Your task to perform on an android device: turn off priority inbox in the gmail app Image 0: 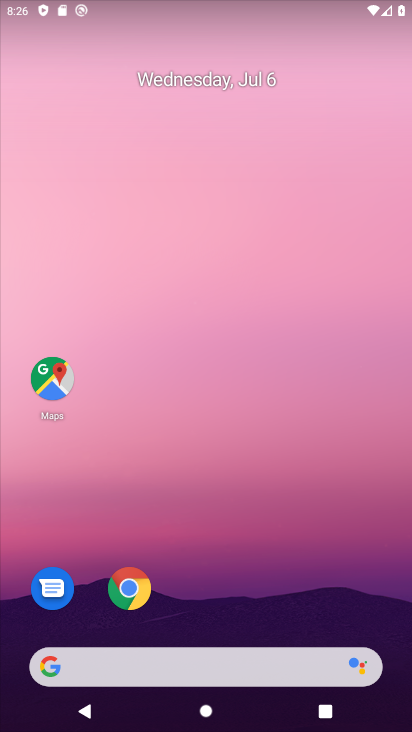
Step 0: drag from (183, 614) to (245, 255)
Your task to perform on an android device: turn off priority inbox in the gmail app Image 1: 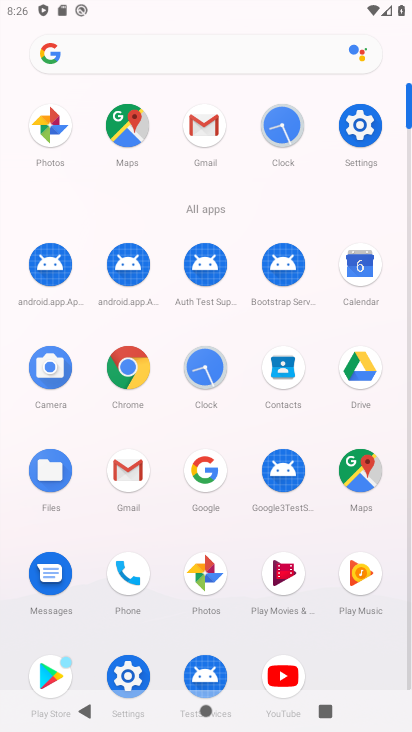
Step 1: click (128, 469)
Your task to perform on an android device: turn off priority inbox in the gmail app Image 2: 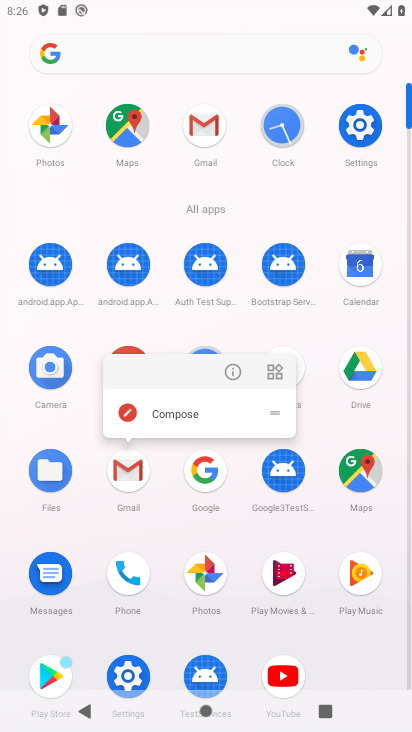
Step 2: click (235, 368)
Your task to perform on an android device: turn off priority inbox in the gmail app Image 3: 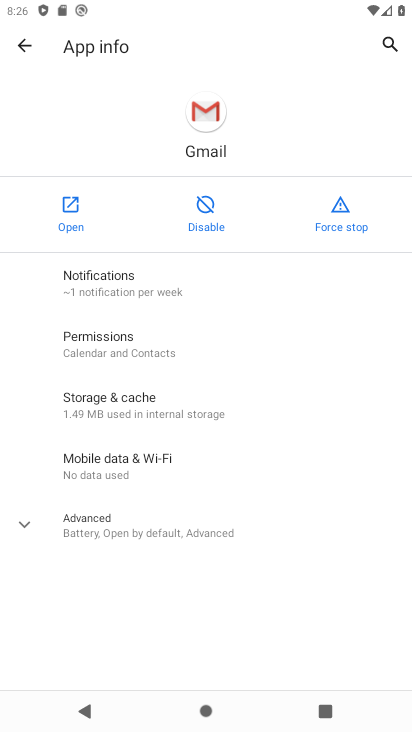
Step 3: click (76, 216)
Your task to perform on an android device: turn off priority inbox in the gmail app Image 4: 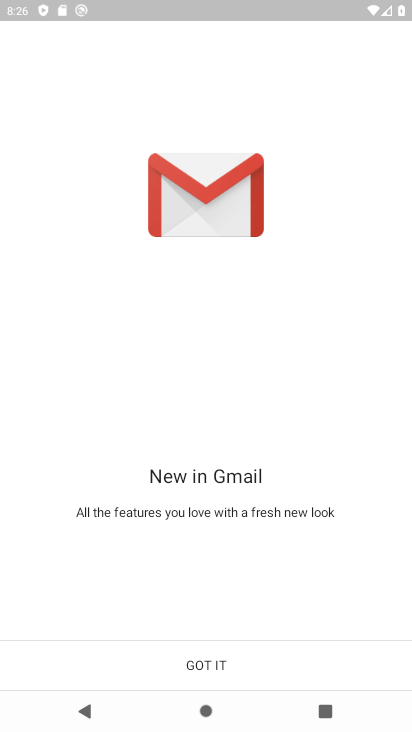
Step 4: click (198, 661)
Your task to perform on an android device: turn off priority inbox in the gmail app Image 5: 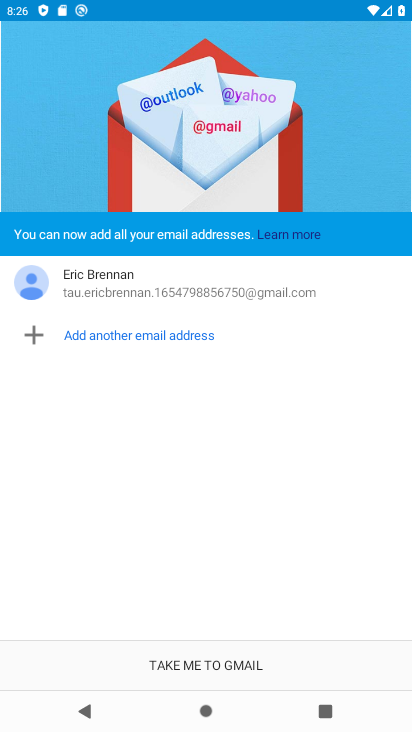
Step 5: click (193, 664)
Your task to perform on an android device: turn off priority inbox in the gmail app Image 6: 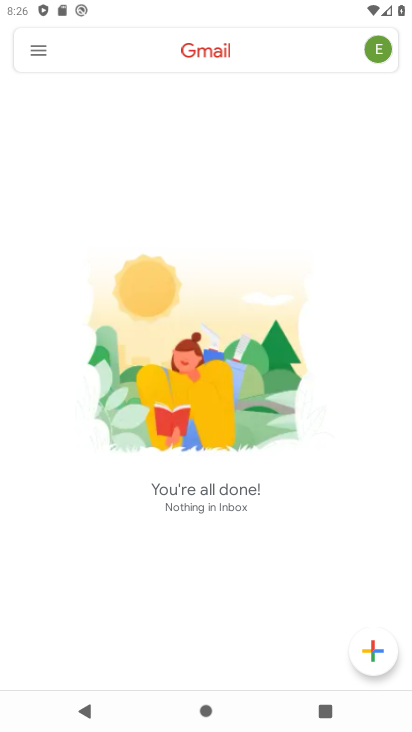
Step 6: click (36, 45)
Your task to perform on an android device: turn off priority inbox in the gmail app Image 7: 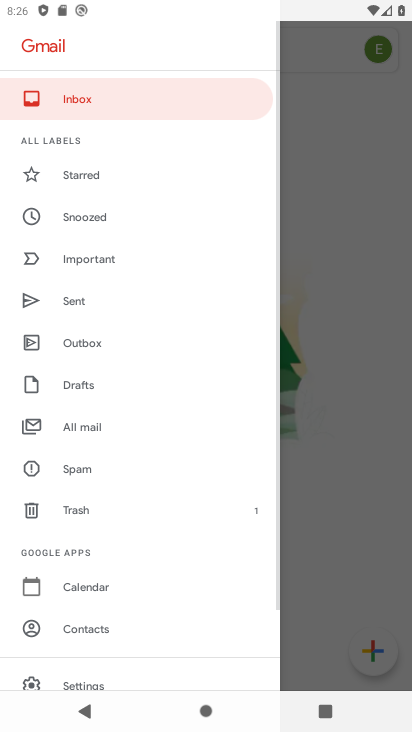
Step 7: drag from (109, 566) to (206, 189)
Your task to perform on an android device: turn off priority inbox in the gmail app Image 8: 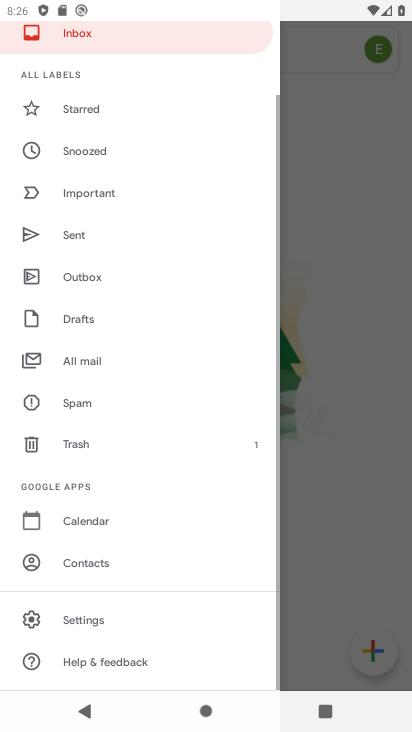
Step 8: click (95, 624)
Your task to perform on an android device: turn off priority inbox in the gmail app Image 9: 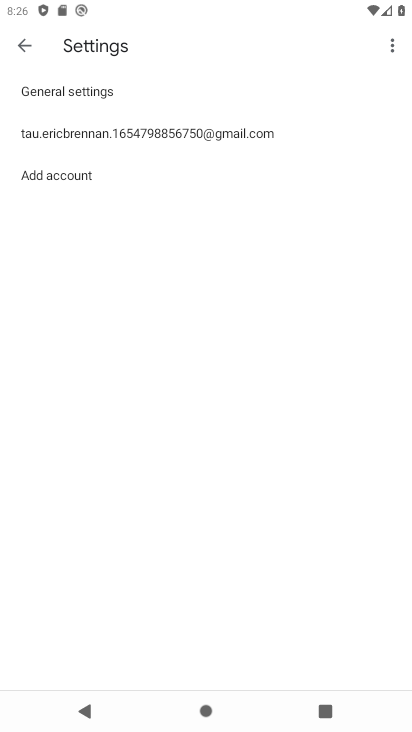
Step 9: click (151, 132)
Your task to perform on an android device: turn off priority inbox in the gmail app Image 10: 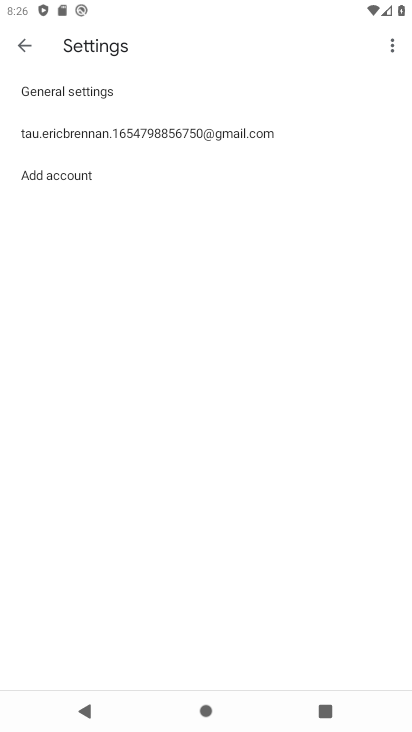
Step 10: click (151, 132)
Your task to perform on an android device: turn off priority inbox in the gmail app Image 11: 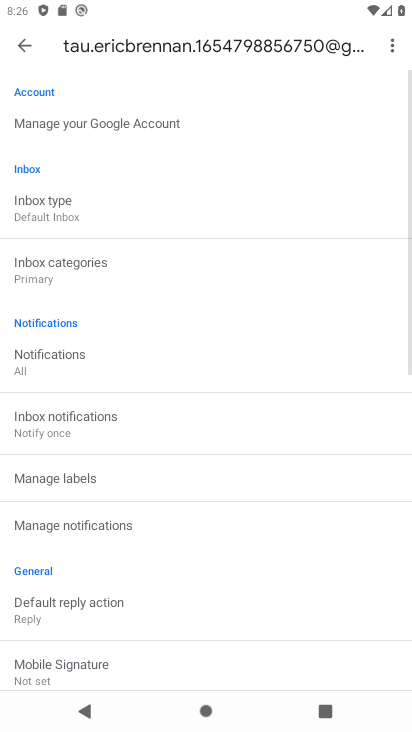
Step 11: drag from (83, 589) to (202, 287)
Your task to perform on an android device: turn off priority inbox in the gmail app Image 12: 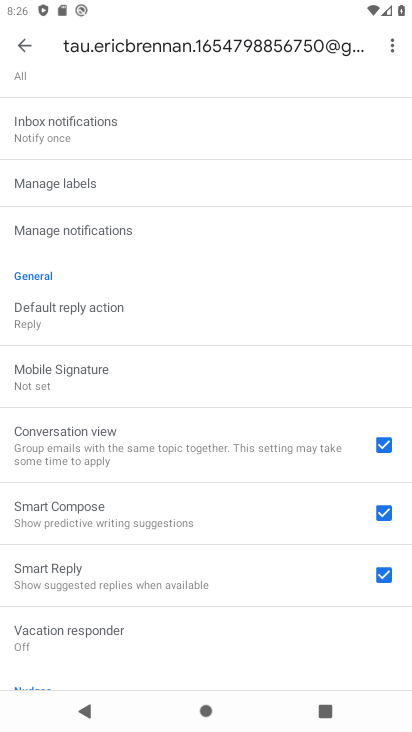
Step 12: drag from (92, 603) to (201, 274)
Your task to perform on an android device: turn off priority inbox in the gmail app Image 13: 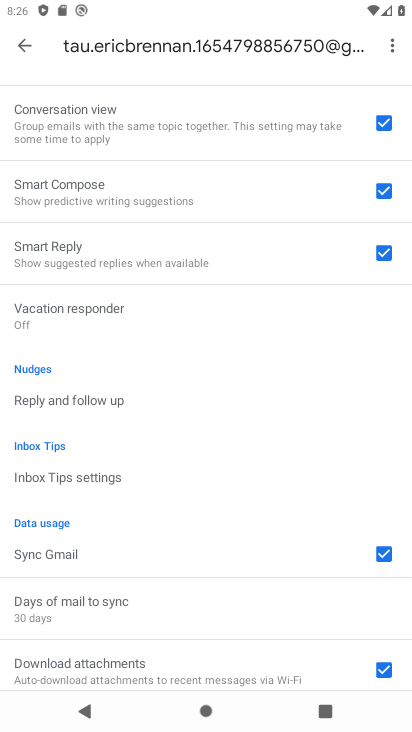
Step 13: drag from (128, 547) to (258, 266)
Your task to perform on an android device: turn off priority inbox in the gmail app Image 14: 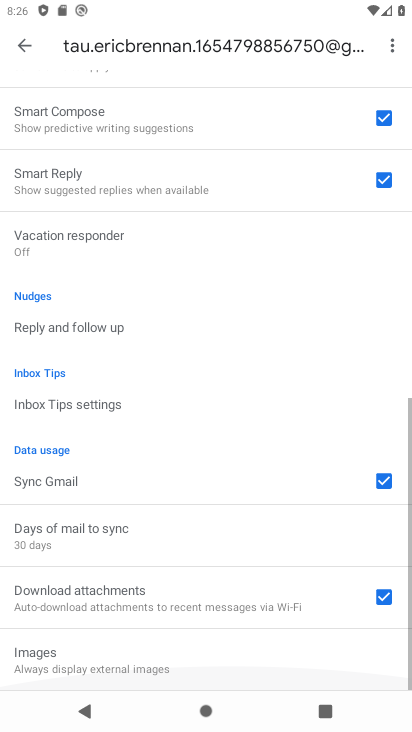
Step 14: drag from (271, 220) to (148, 725)
Your task to perform on an android device: turn off priority inbox in the gmail app Image 15: 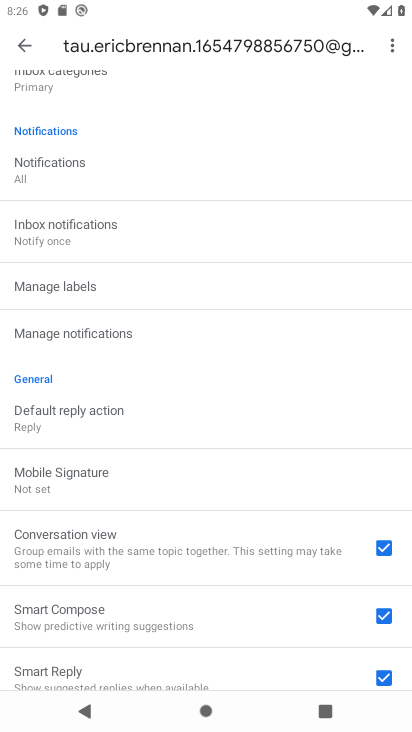
Step 15: drag from (208, 208) to (208, 717)
Your task to perform on an android device: turn off priority inbox in the gmail app Image 16: 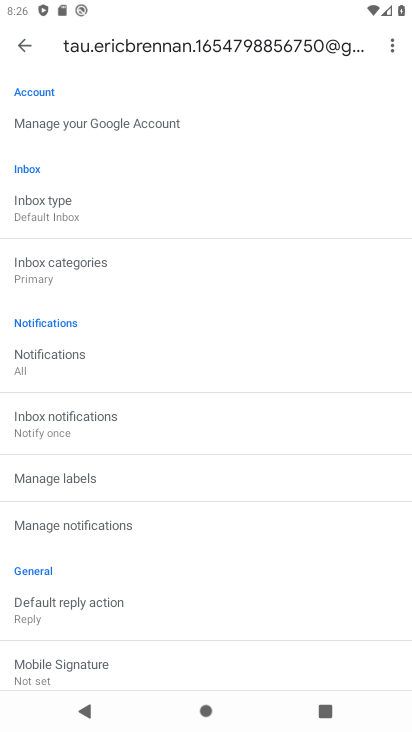
Step 16: click (96, 216)
Your task to perform on an android device: turn off priority inbox in the gmail app Image 17: 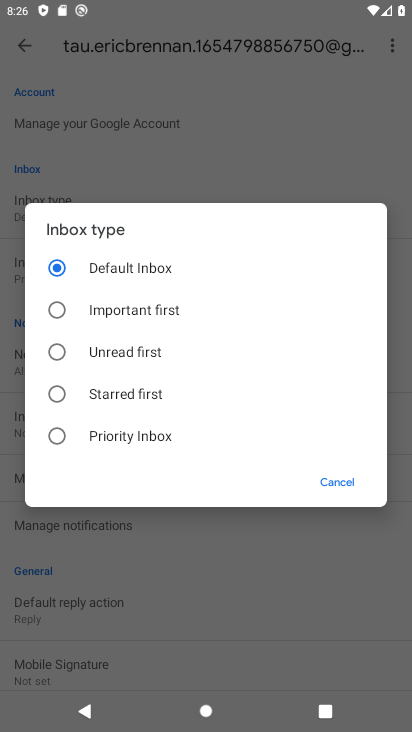
Step 17: click (50, 426)
Your task to perform on an android device: turn off priority inbox in the gmail app Image 18: 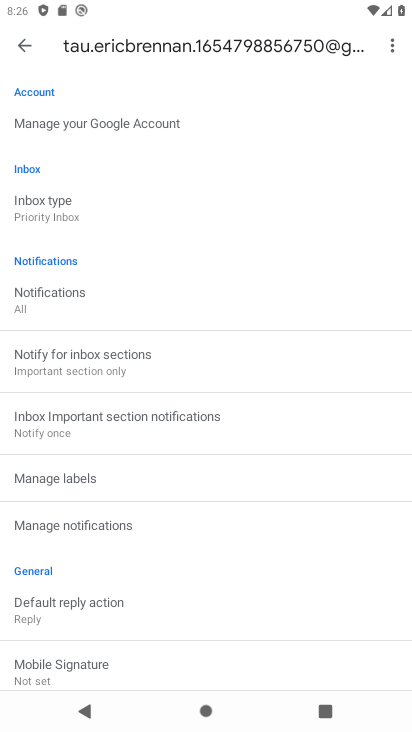
Step 18: click (27, 231)
Your task to perform on an android device: turn off priority inbox in the gmail app Image 19: 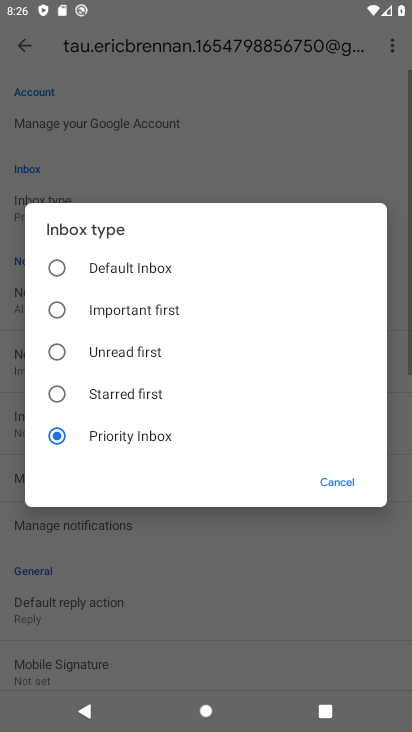
Step 19: click (99, 272)
Your task to perform on an android device: turn off priority inbox in the gmail app Image 20: 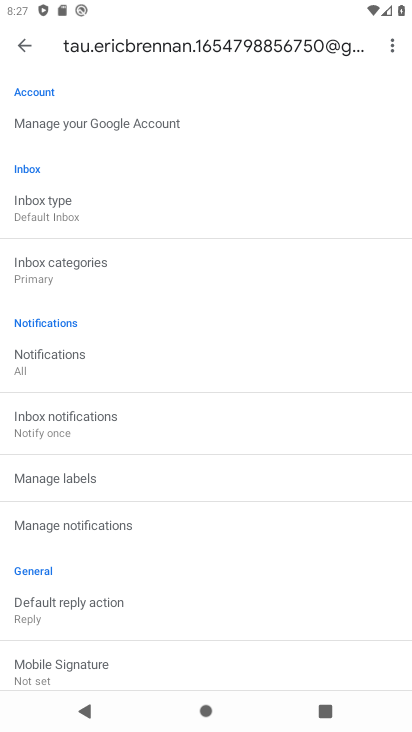
Step 20: task complete